Your task to perform on an android device: Search for panasonic triple a on target.com, select the first entry, add it to the cart, then select checkout. Image 0: 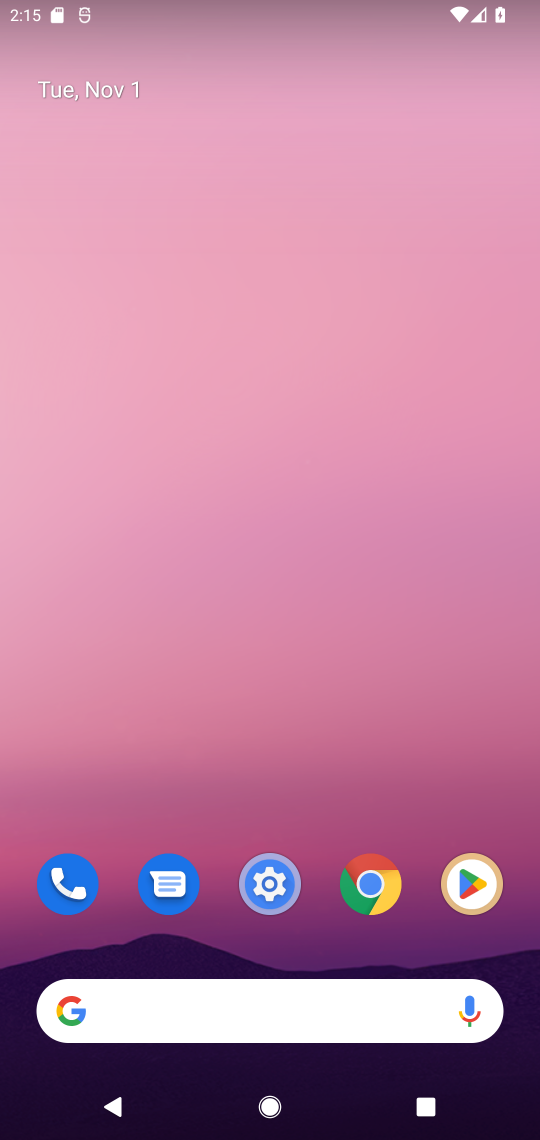
Step 0: click (102, 1010)
Your task to perform on an android device: Search for panasonic triple a on target.com, select the first entry, add it to the cart, then select checkout. Image 1: 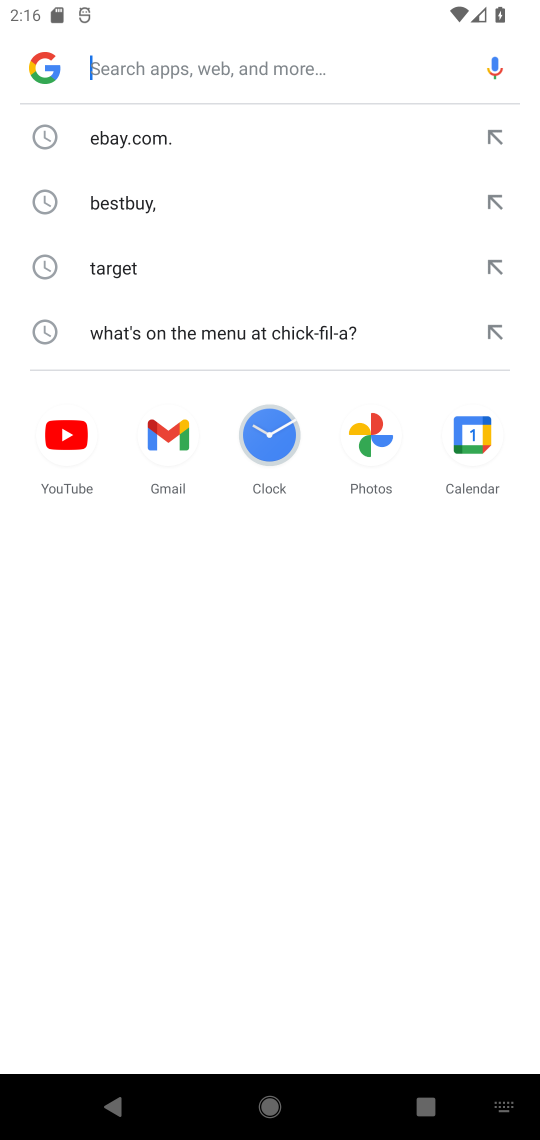
Step 1: type "target.com,"
Your task to perform on an android device: Search for panasonic triple a on target.com, select the first entry, add it to the cart, then select checkout. Image 2: 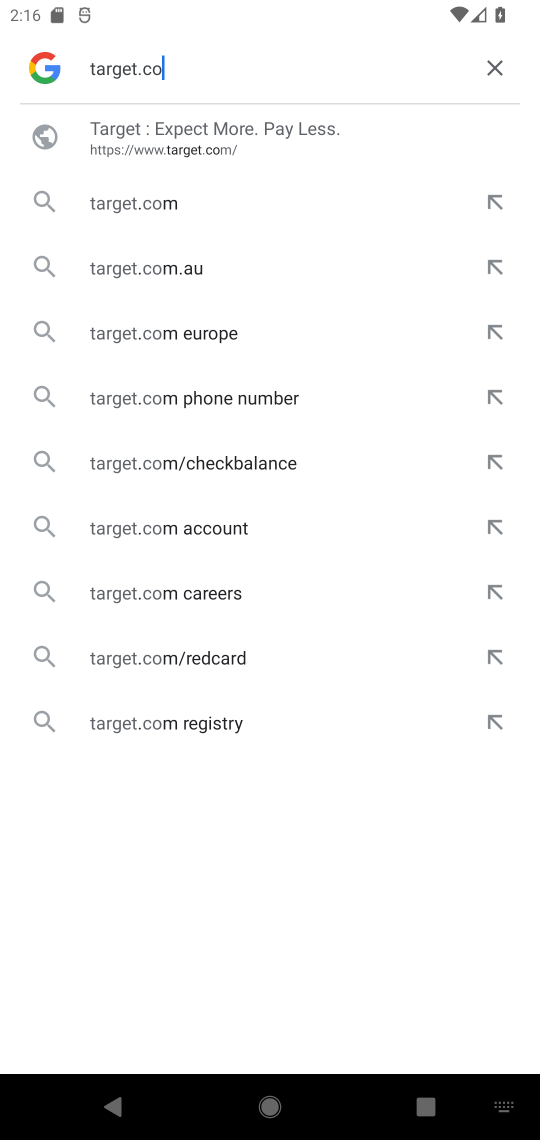
Step 2: press enter
Your task to perform on an android device: Search for panasonic triple a on target.com, select the first entry, add it to the cart, then select checkout. Image 3: 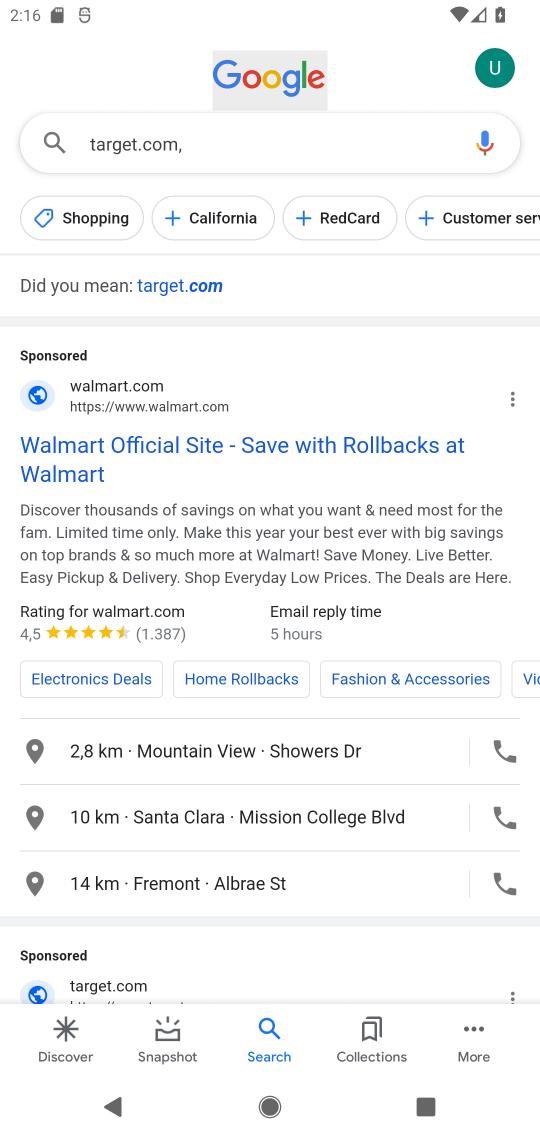
Step 3: click (263, 455)
Your task to perform on an android device: Search for panasonic triple a on target.com, select the first entry, add it to the cart, then select checkout. Image 4: 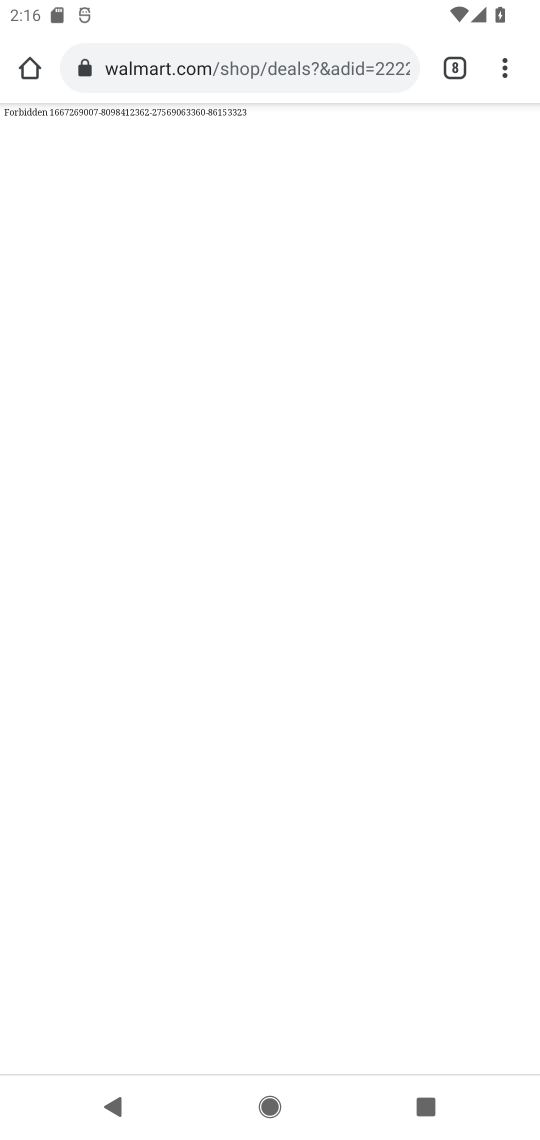
Step 4: task complete